Your task to perform on an android device: turn on notifications settings in the gmail app Image 0: 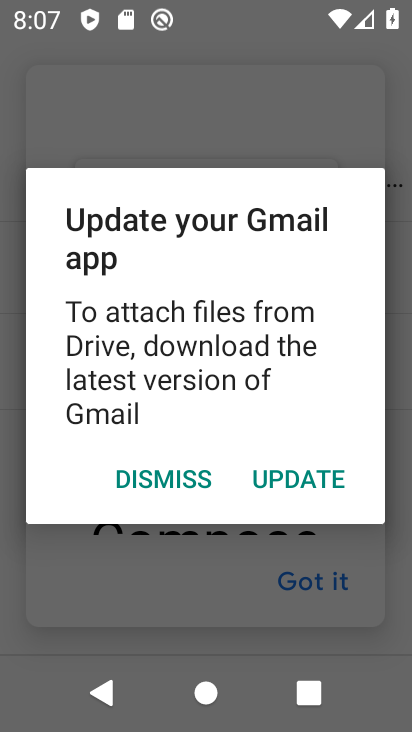
Step 0: press home button
Your task to perform on an android device: turn on notifications settings in the gmail app Image 1: 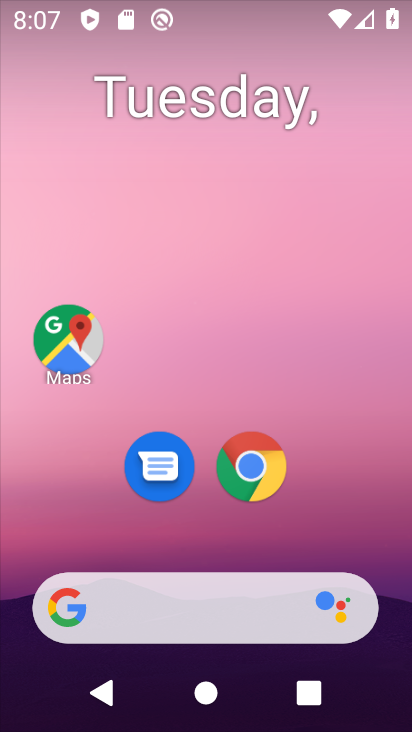
Step 1: drag from (182, 565) to (281, 1)
Your task to perform on an android device: turn on notifications settings in the gmail app Image 2: 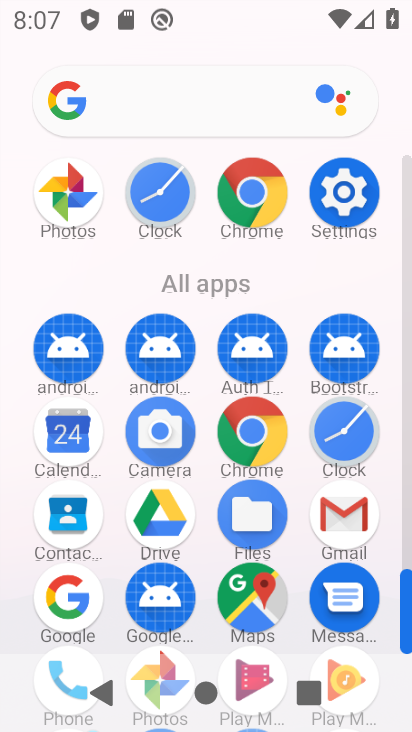
Step 2: click (357, 526)
Your task to perform on an android device: turn on notifications settings in the gmail app Image 3: 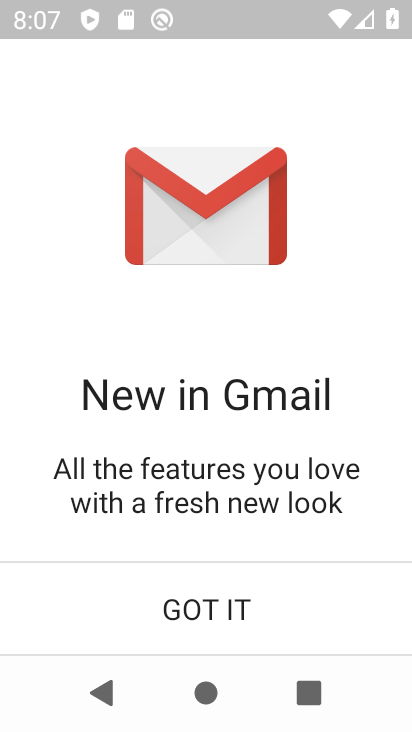
Step 3: click (230, 619)
Your task to perform on an android device: turn on notifications settings in the gmail app Image 4: 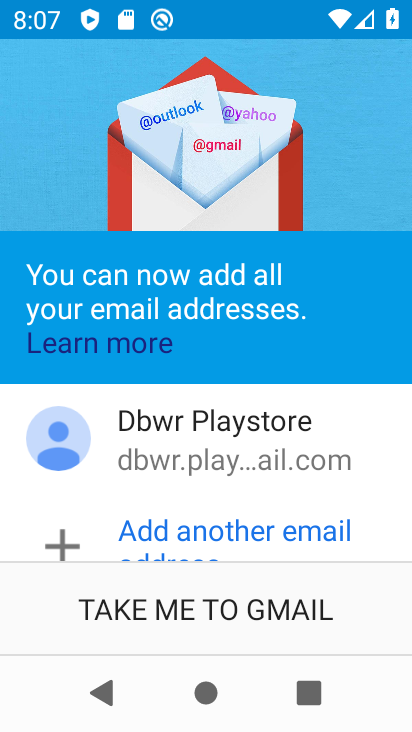
Step 4: click (264, 621)
Your task to perform on an android device: turn on notifications settings in the gmail app Image 5: 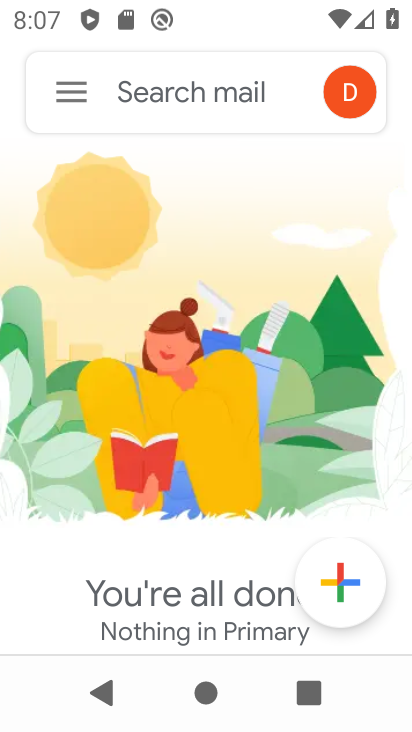
Step 5: click (69, 98)
Your task to perform on an android device: turn on notifications settings in the gmail app Image 6: 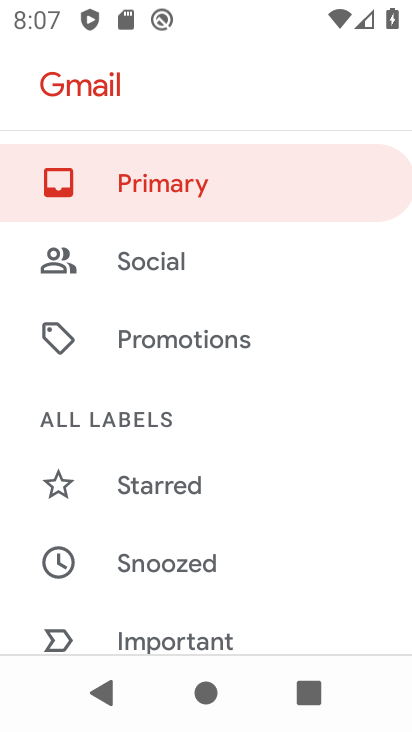
Step 6: drag from (178, 521) to (247, 69)
Your task to perform on an android device: turn on notifications settings in the gmail app Image 7: 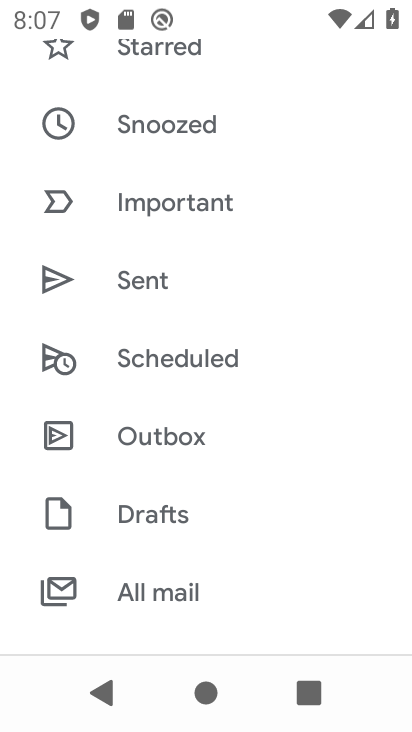
Step 7: drag from (184, 553) to (255, 116)
Your task to perform on an android device: turn on notifications settings in the gmail app Image 8: 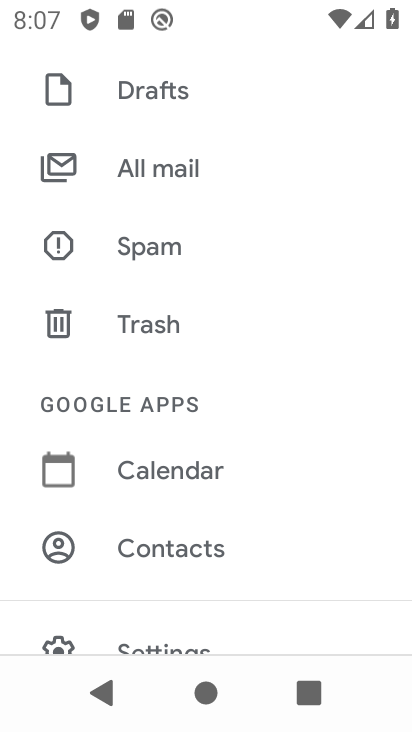
Step 8: drag from (212, 533) to (301, 119)
Your task to perform on an android device: turn on notifications settings in the gmail app Image 9: 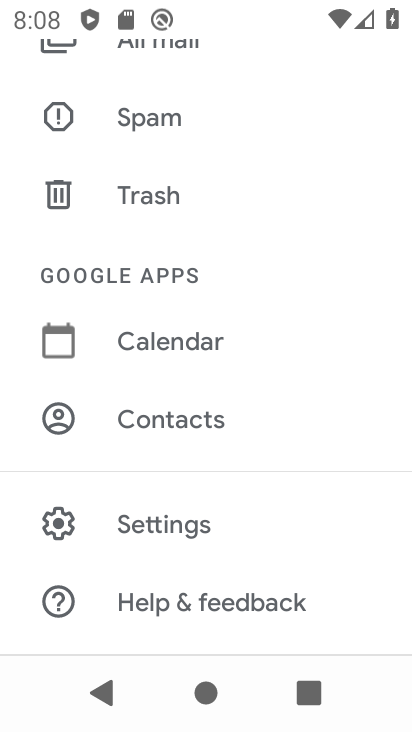
Step 9: click (184, 539)
Your task to perform on an android device: turn on notifications settings in the gmail app Image 10: 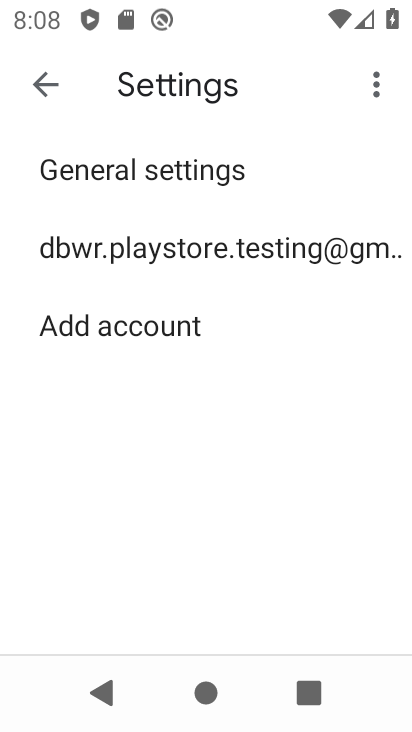
Step 10: click (182, 178)
Your task to perform on an android device: turn on notifications settings in the gmail app Image 11: 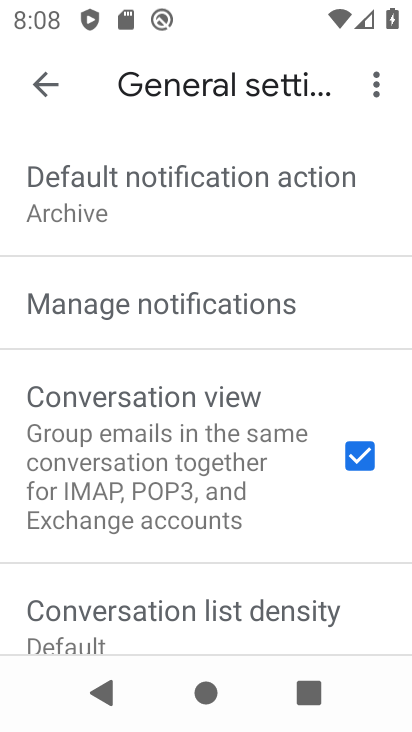
Step 11: click (172, 323)
Your task to perform on an android device: turn on notifications settings in the gmail app Image 12: 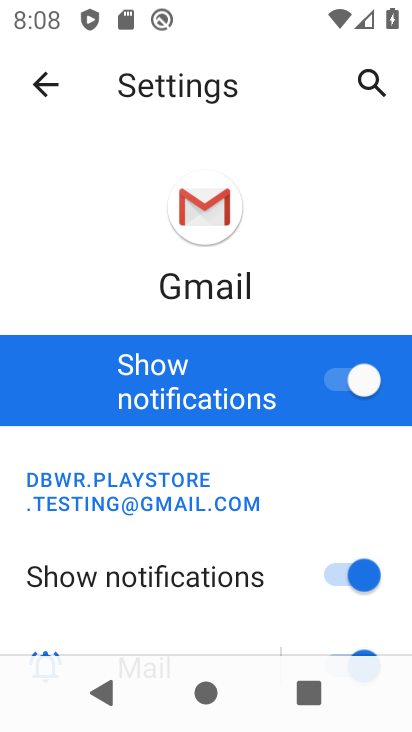
Step 12: task complete